Your task to perform on an android device: open device folders in google photos Image 0: 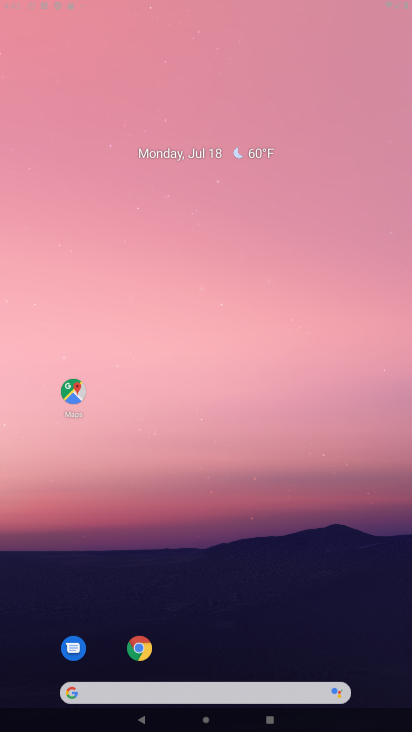
Step 0: press home button
Your task to perform on an android device: open device folders in google photos Image 1: 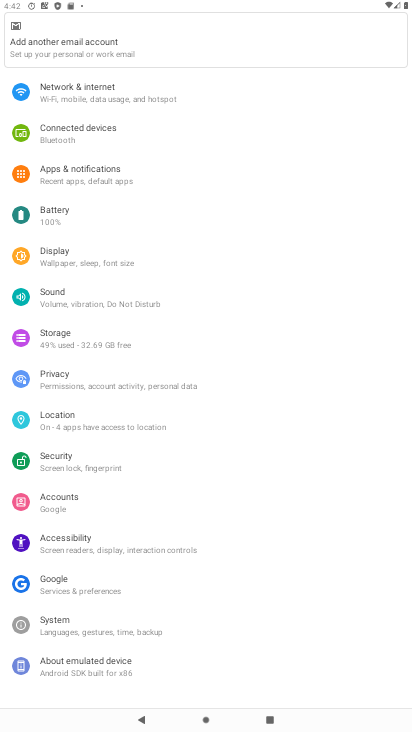
Step 1: click (238, 14)
Your task to perform on an android device: open device folders in google photos Image 2: 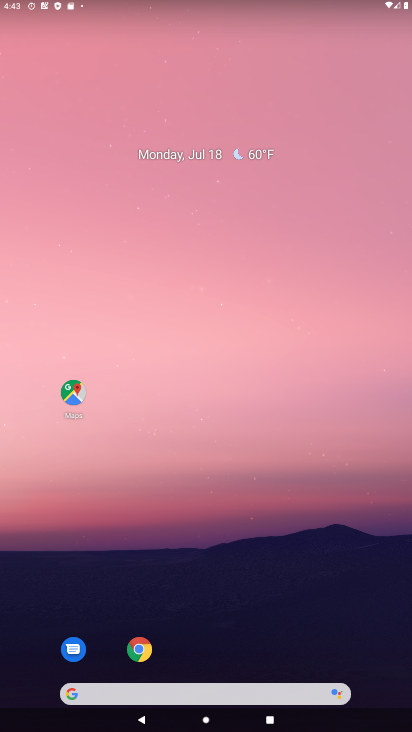
Step 2: drag from (202, 662) to (228, 111)
Your task to perform on an android device: open device folders in google photos Image 3: 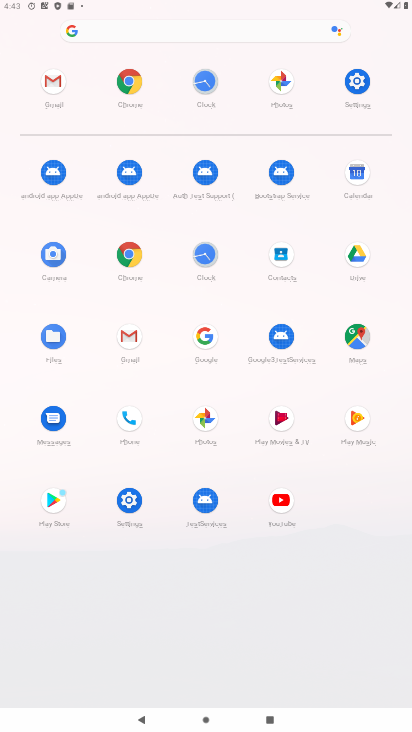
Step 3: click (206, 420)
Your task to perform on an android device: open device folders in google photos Image 4: 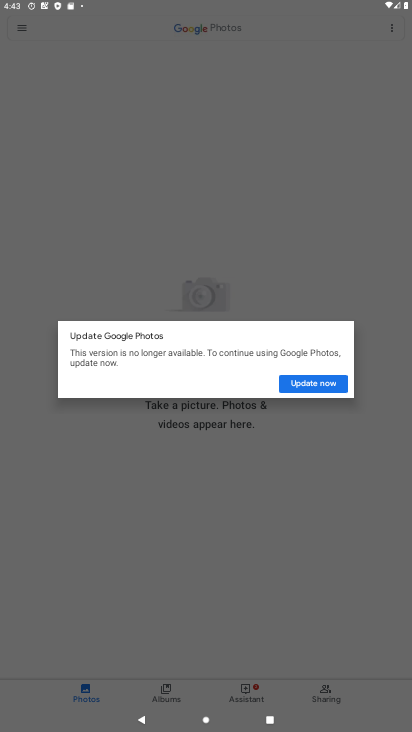
Step 4: click (321, 378)
Your task to perform on an android device: open device folders in google photos Image 5: 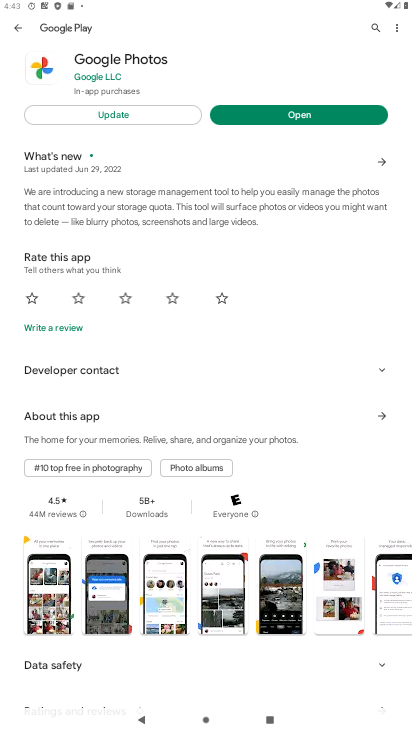
Step 5: click (276, 111)
Your task to perform on an android device: open device folders in google photos Image 6: 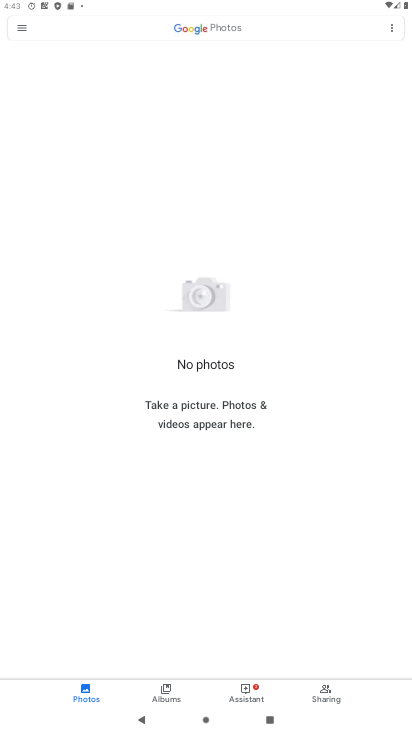
Step 6: click (24, 24)
Your task to perform on an android device: open device folders in google photos Image 7: 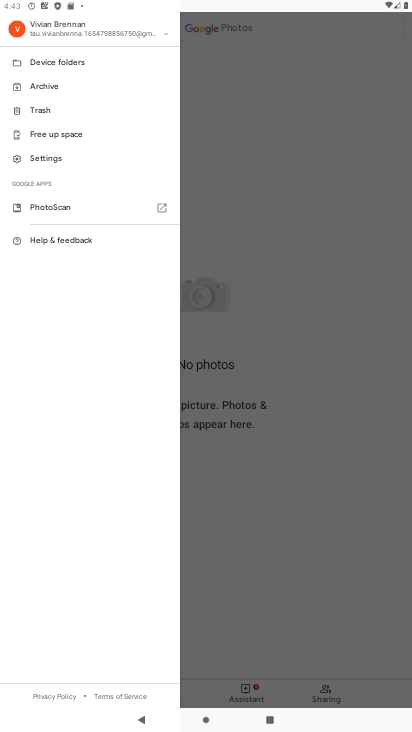
Step 7: click (65, 65)
Your task to perform on an android device: open device folders in google photos Image 8: 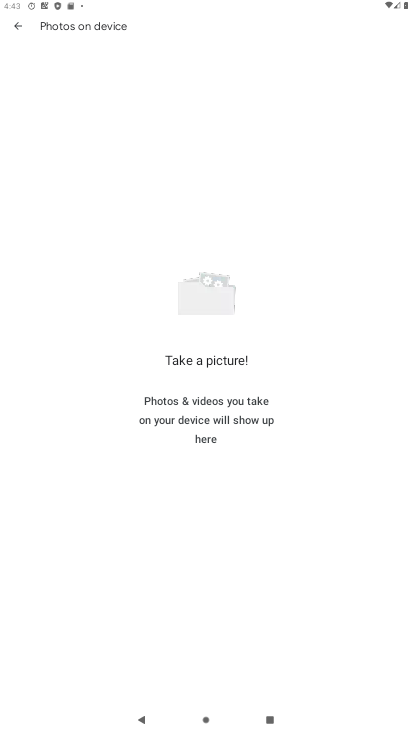
Step 8: task complete